Your task to perform on an android device: Search for pizza restaurants on Maps Image 0: 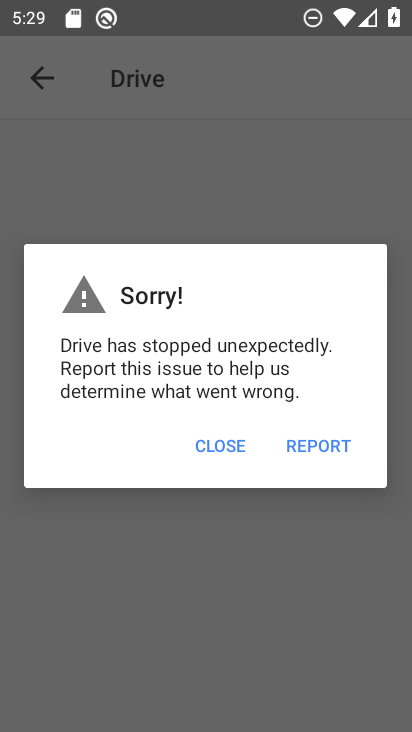
Step 0: press back button
Your task to perform on an android device: Search for pizza restaurants on Maps Image 1: 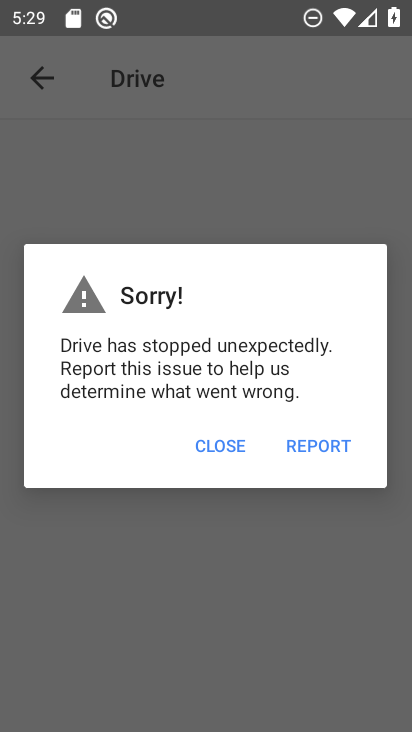
Step 1: press home button
Your task to perform on an android device: Search for pizza restaurants on Maps Image 2: 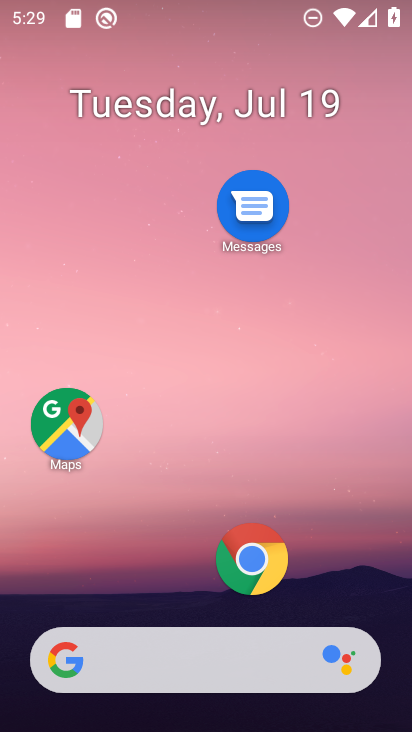
Step 2: click (76, 423)
Your task to perform on an android device: Search for pizza restaurants on Maps Image 3: 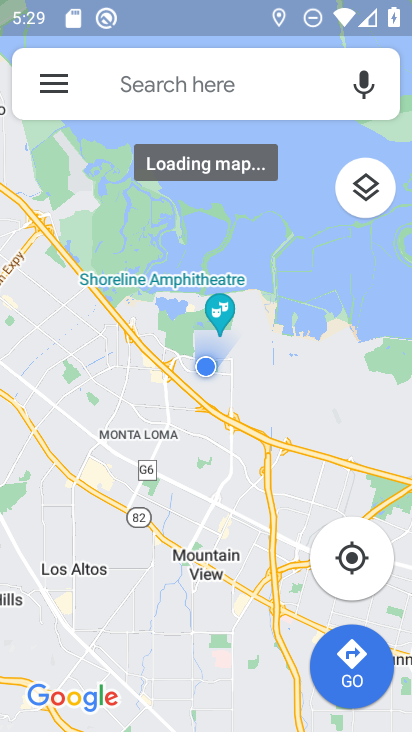
Step 3: click (142, 89)
Your task to perform on an android device: Search for pizza restaurants on Maps Image 4: 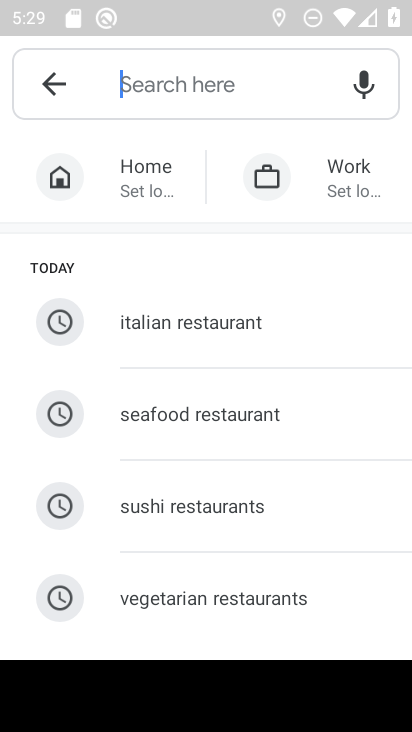
Step 4: drag from (179, 583) to (246, 81)
Your task to perform on an android device: Search for pizza restaurants on Maps Image 5: 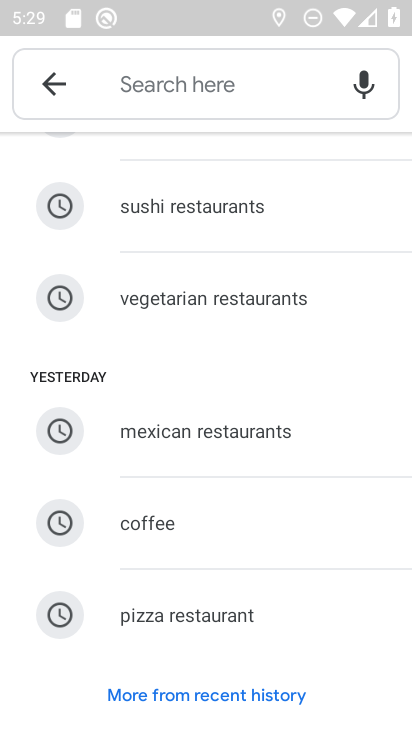
Step 5: click (155, 611)
Your task to perform on an android device: Search for pizza restaurants on Maps Image 6: 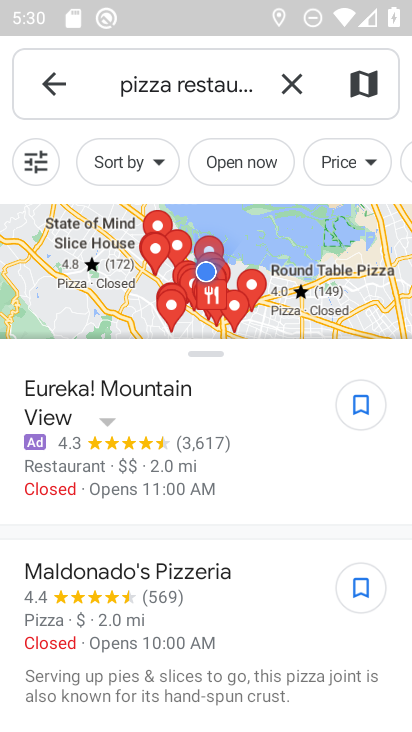
Step 6: task complete